Your task to perform on an android device: change alarm snooze length Image 0: 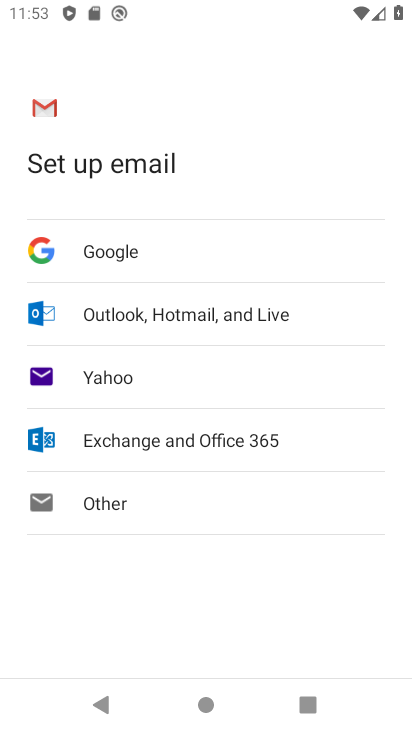
Step 0: press home button
Your task to perform on an android device: change alarm snooze length Image 1: 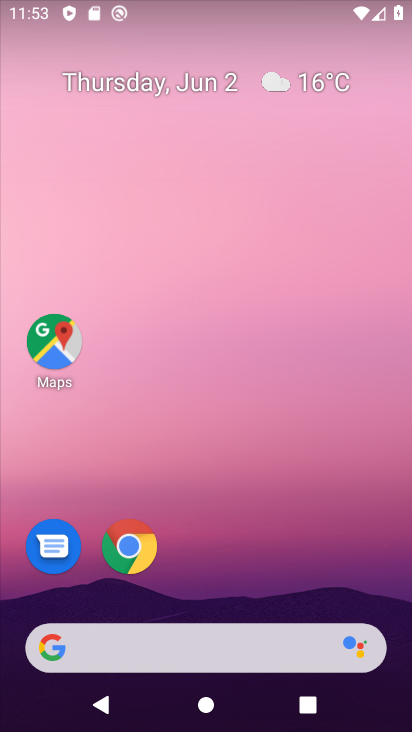
Step 1: drag from (157, 718) to (165, 2)
Your task to perform on an android device: change alarm snooze length Image 2: 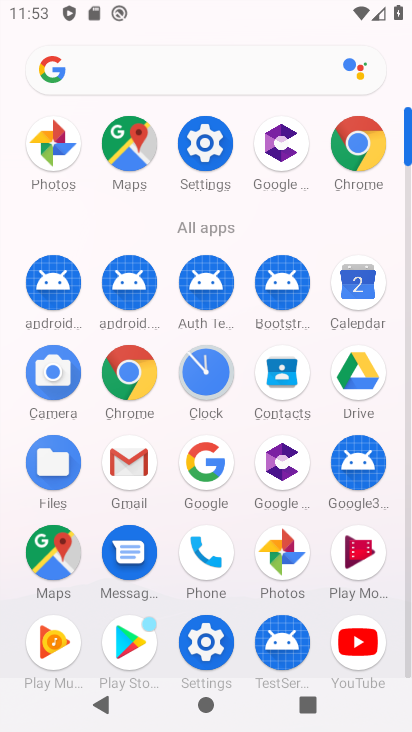
Step 2: click (208, 645)
Your task to perform on an android device: change alarm snooze length Image 3: 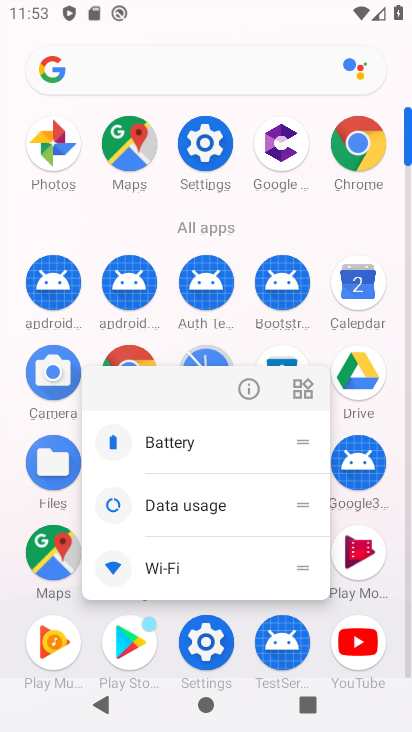
Step 3: click (215, 355)
Your task to perform on an android device: change alarm snooze length Image 4: 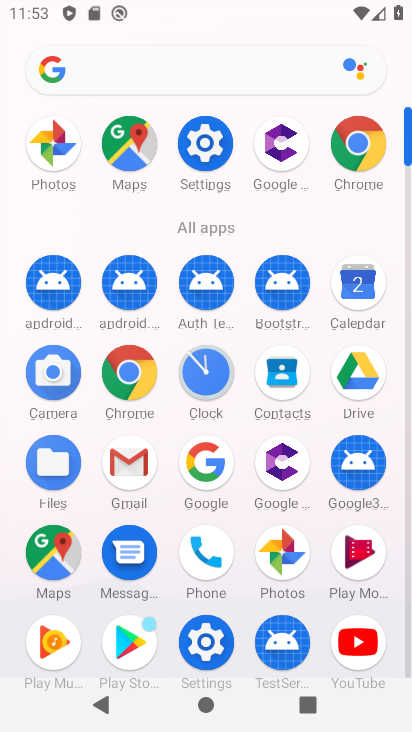
Step 4: click (201, 377)
Your task to perform on an android device: change alarm snooze length Image 5: 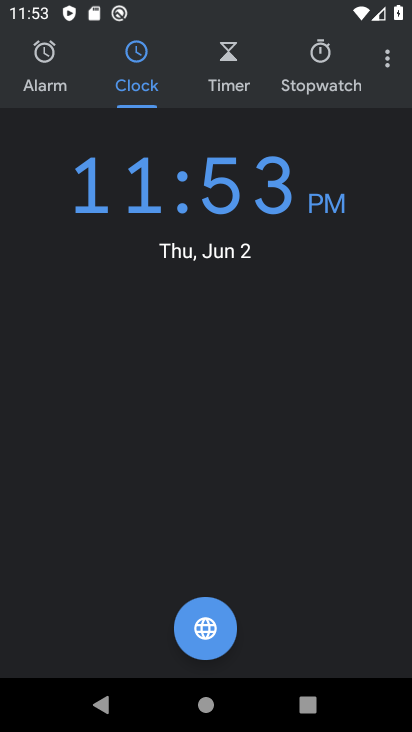
Step 5: click (383, 54)
Your task to perform on an android device: change alarm snooze length Image 6: 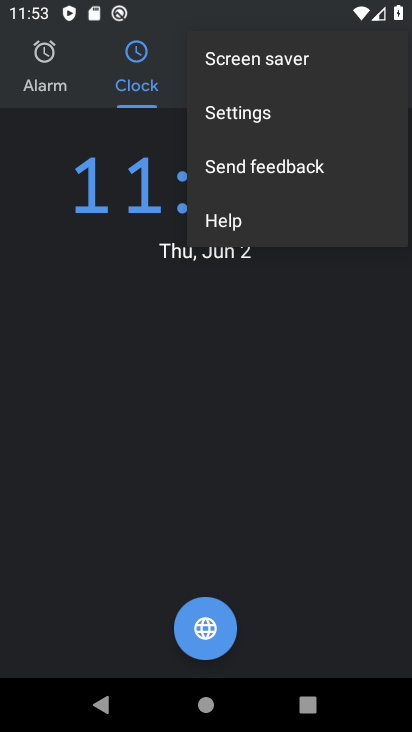
Step 6: click (238, 107)
Your task to perform on an android device: change alarm snooze length Image 7: 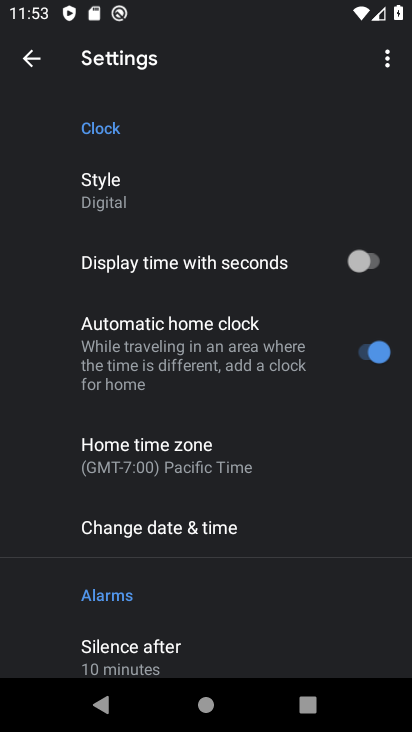
Step 7: drag from (235, 587) to (226, 195)
Your task to perform on an android device: change alarm snooze length Image 8: 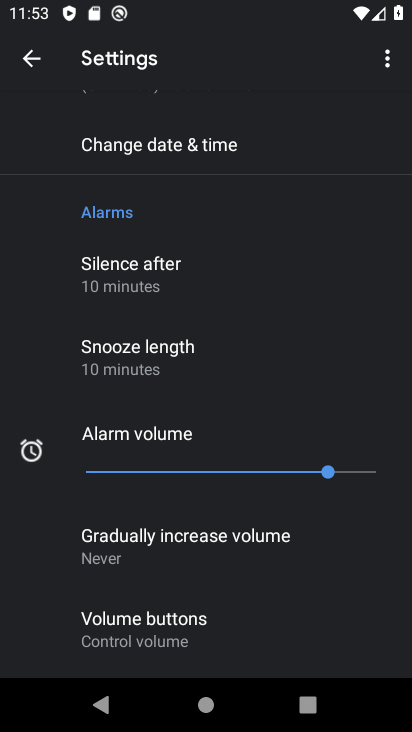
Step 8: click (149, 363)
Your task to perform on an android device: change alarm snooze length Image 9: 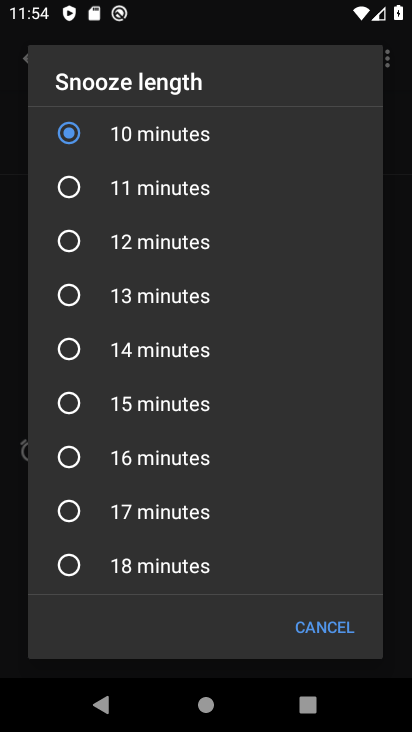
Step 9: click (145, 227)
Your task to perform on an android device: change alarm snooze length Image 10: 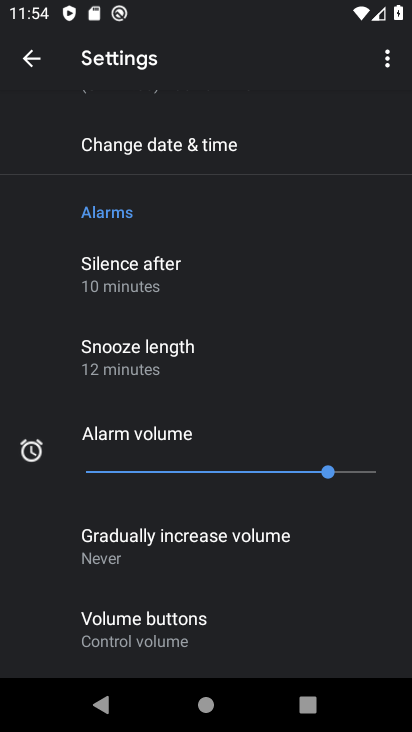
Step 10: task complete